Your task to perform on an android device: toggle pop-ups in chrome Image 0: 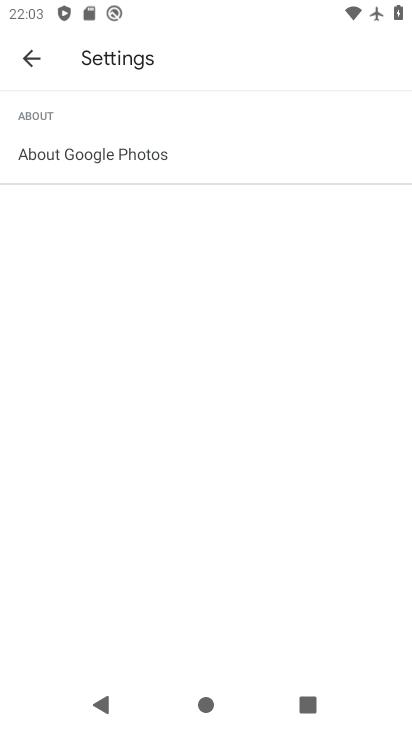
Step 0: press home button
Your task to perform on an android device: toggle pop-ups in chrome Image 1: 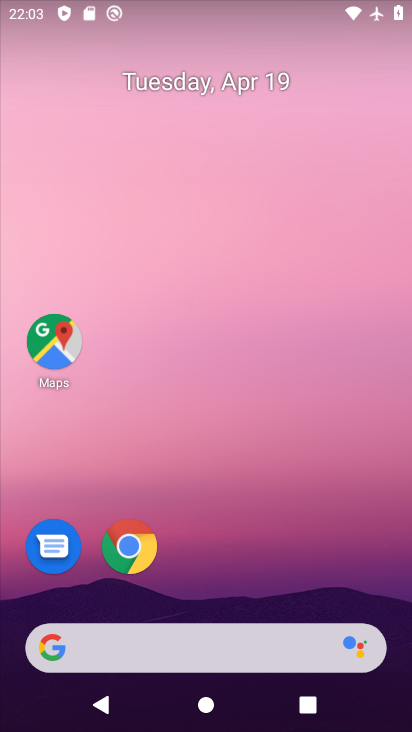
Step 1: drag from (234, 613) to (235, 7)
Your task to perform on an android device: toggle pop-ups in chrome Image 2: 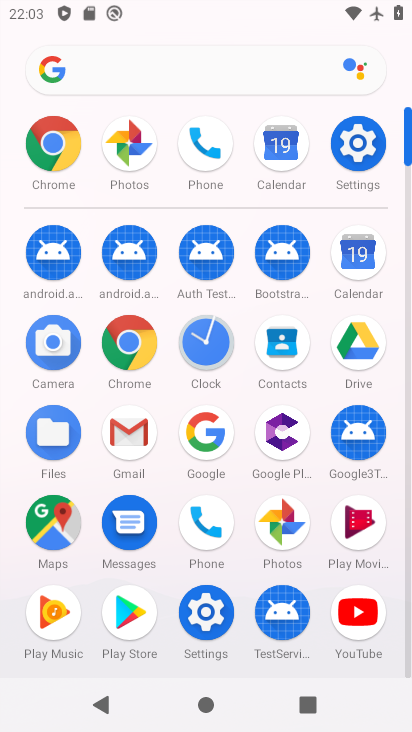
Step 2: click (50, 143)
Your task to perform on an android device: toggle pop-ups in chrome Image 3: 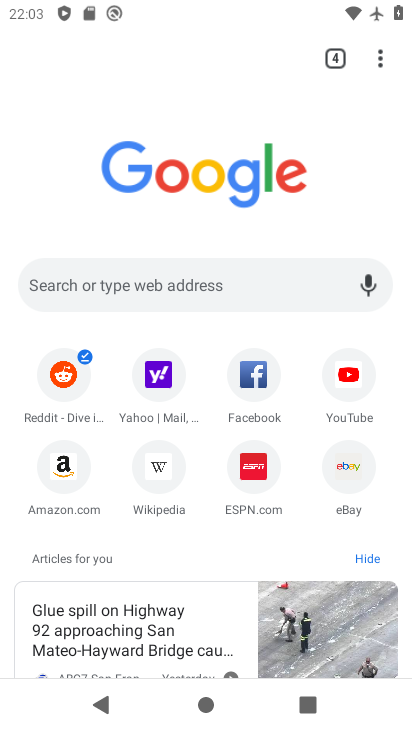
Step 3: click (377, 66)
Your task to perform on an android device: toggle pop-ups in chrome Image 4: 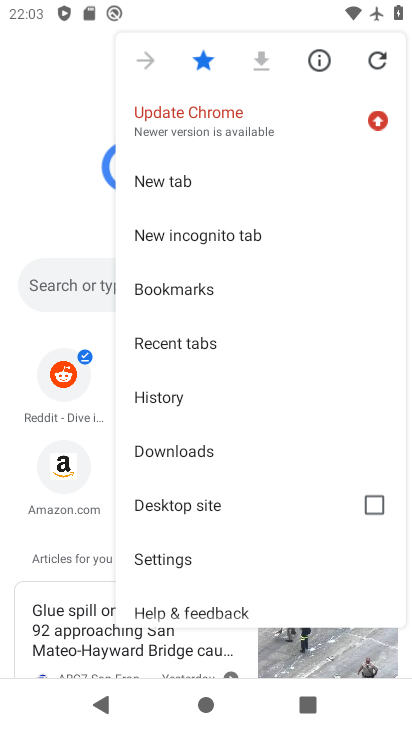
Step 4: drag from (228, 515) to (240, 233)
Your task to perform on an android device: toggle pop-ups in chrome Image 5: 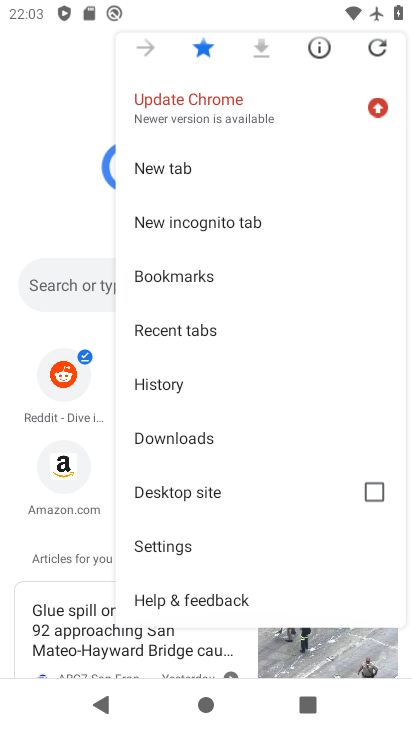
Step 5: click (204, 533)
Your task to perform on an android device: toggle pop-ups in chrome Image 6: 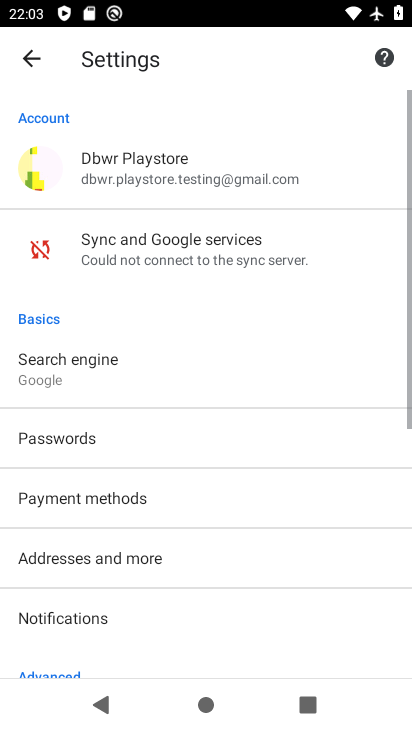
Step 6: drag from (186, 502) to (219, 208)
Your task to perform on an android device: toggle pop-ups in chrome Image 7: 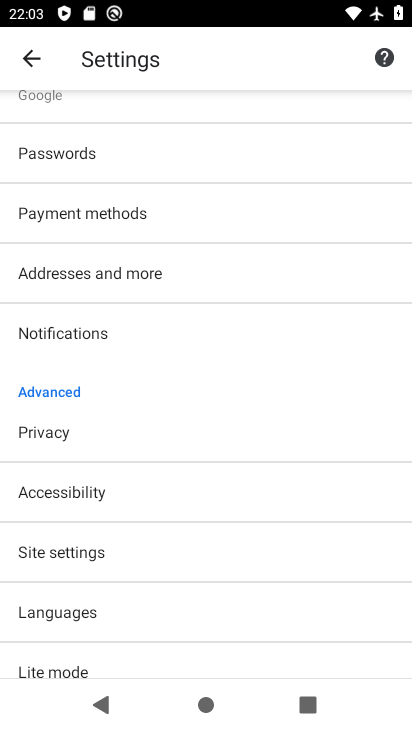
Step 7: drag from (217, 595) to (170, 142)
Your task to perform on an android device: toggle pop-ups in chrome Image 8: 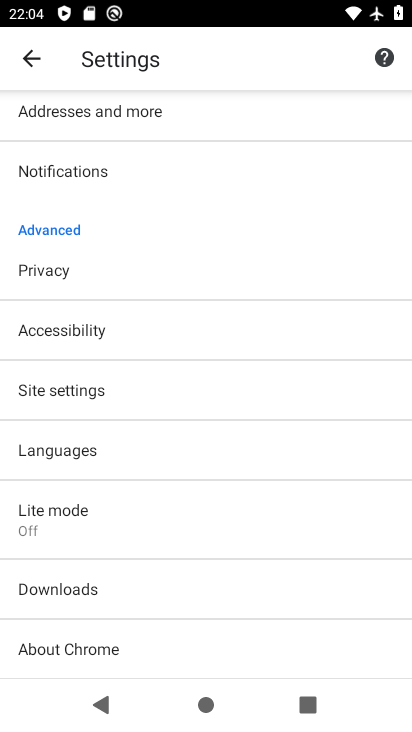
Step 8: click (78, 395)
Your task to perform on an android device: toggle pop-ups in chrome Image 9: 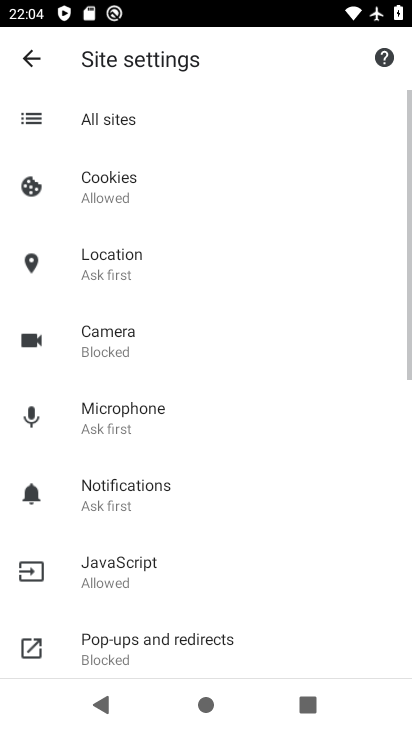
Step 9: click (170, 618)
Your task to perform on an android device: toggle pop-ups in chrome Image 10: 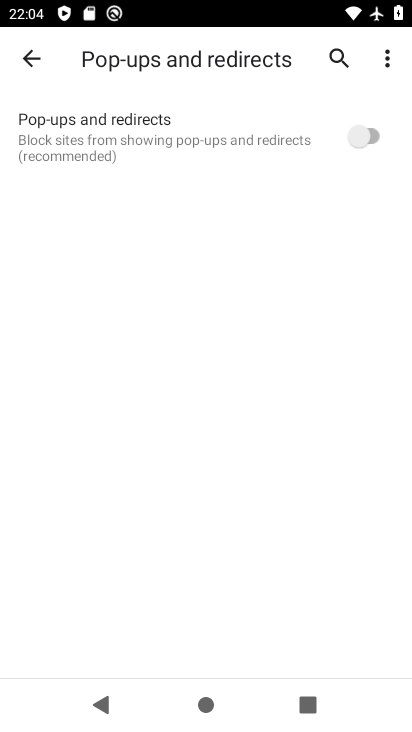
Step 10: click (349, 123)
Your task to perform on an android device: toggle pop-ups in chrome Image 11: 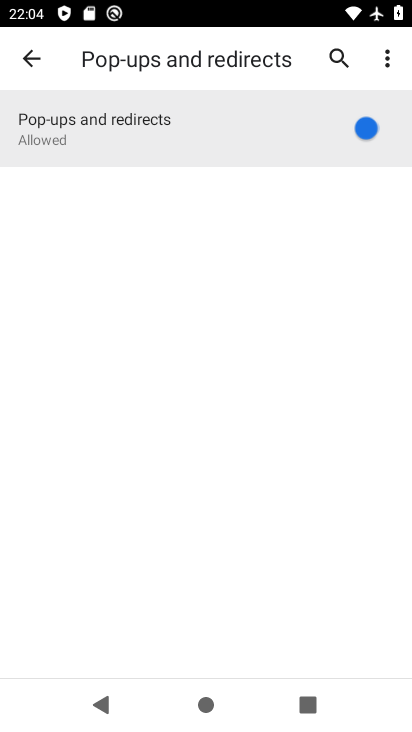
Step 11: task complete